Your task to perform on an android device: open the mobile data screen to see how much data has been used Image 0: 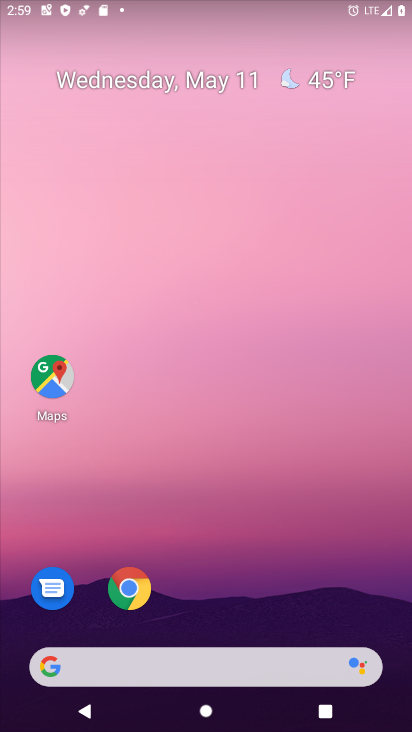
Step 0: drag from (205, 611) to (280, 160)
Your task to perform on an android device: open the mobile data screen to see how much data has been used Image 1: 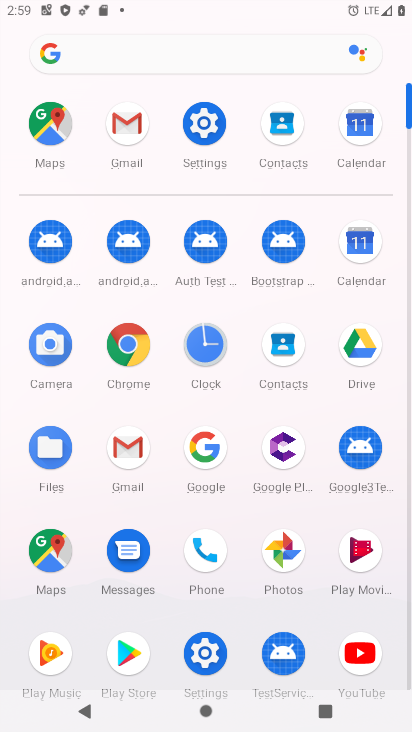
Step 1: click (205, 137)
Your task to perform on an android device: open the mobile data screen to see how much data has been used Image 2: 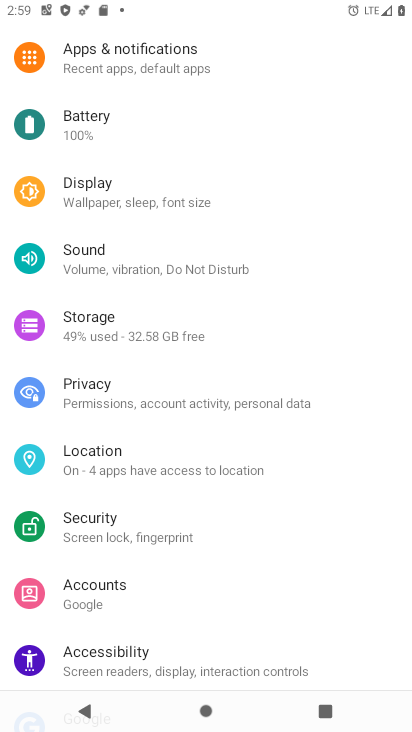
Step 2: drag from (217, 101) to (227, 461)
Your task to perform on an android device: open the mobile data screen to see how much data has been used Image 3: 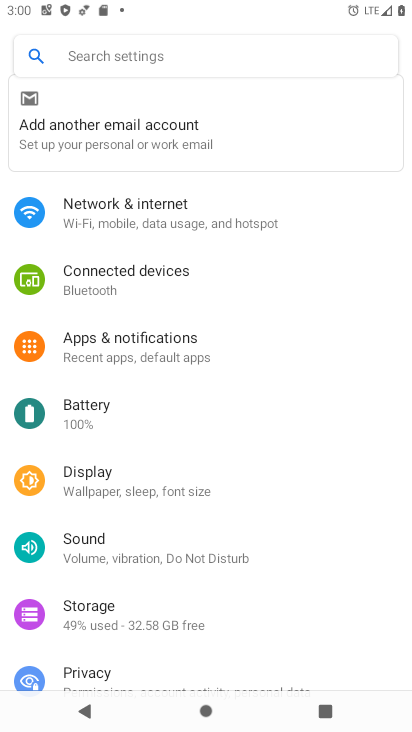
Step 3: click (169, 225)
Your task to perform on an android device: open the mobile data screen to see how much data has been used Image 4: 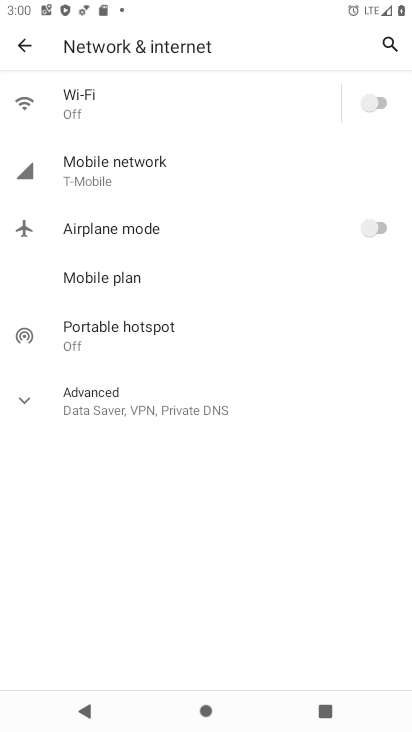
Step 4: click (132, 173)
Your task to perform on an android device: open the mobile data screen to see how much data has been used Image 5: 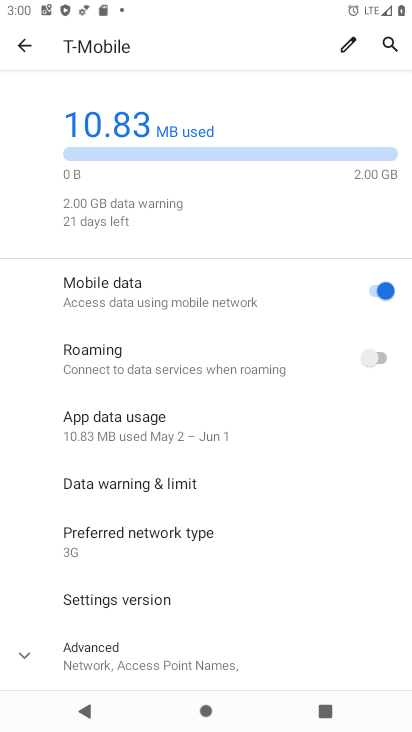
Step 5: click (180, 435)
Your task to perform on an android device: open the mobile data screen to see how much data has been used Image 6: 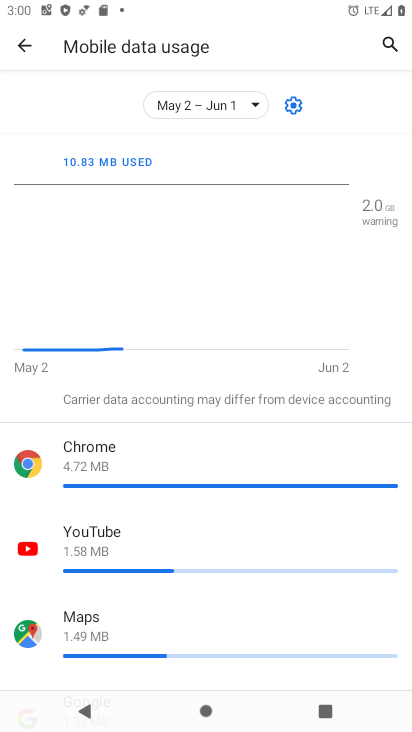
Step 6: task complete